Your task to perform on an android device: show emergency info Image 0: 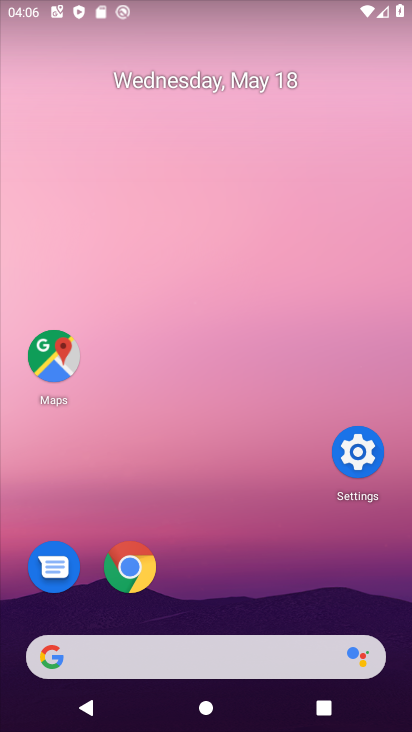
Step 0: drag from (236, 495) to (255, 105)
Your task to perform on an android device: show emergency info Image 1: 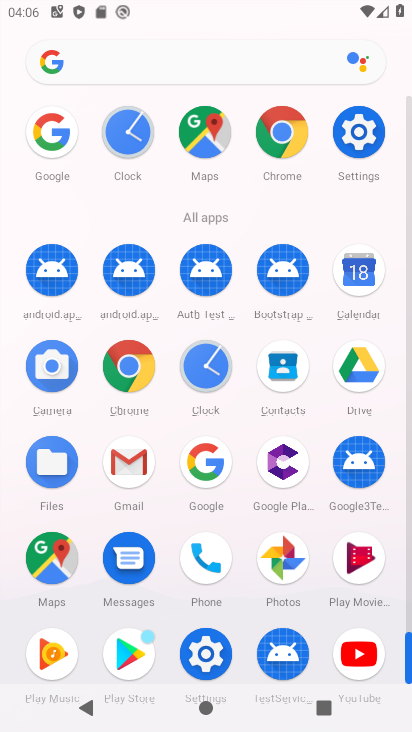
Step 1: click (212, 662)
Your task to perform on an android device: show emergency info Image 2: 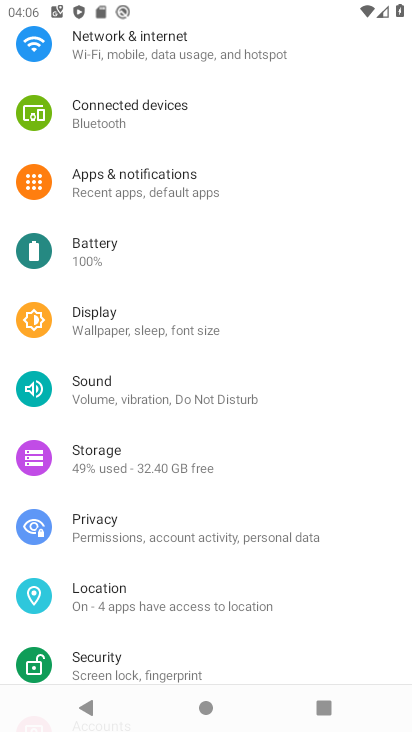
Step 2: drag from (163, 472) to (194, 124)
Your task to perform on an android device: show emergency info Image 3: 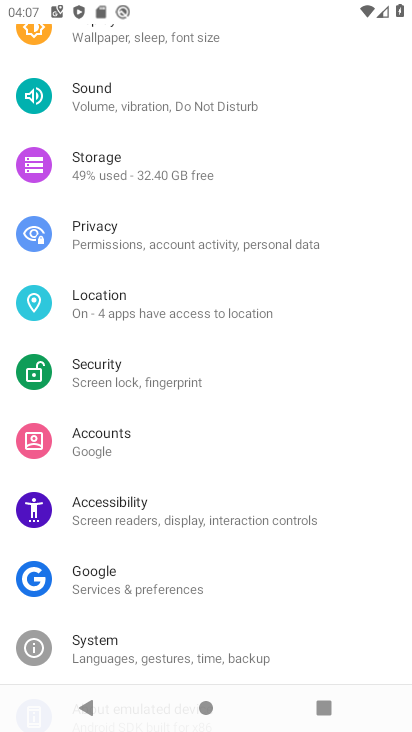
Step 3: click (91, 645)
Your task to perform on an android device: show emergency info Image 4: 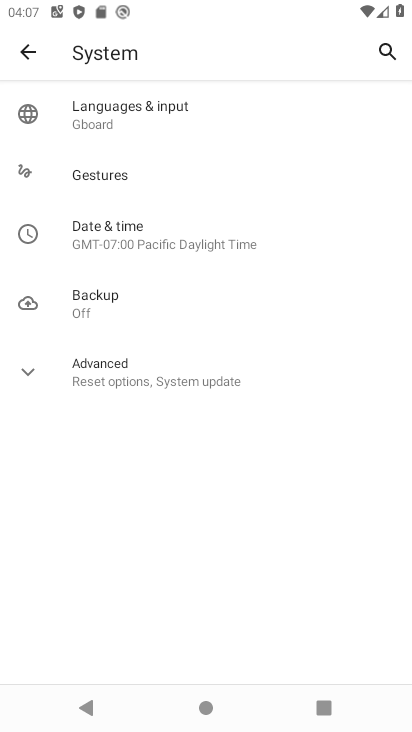
Step 4: click (20, 46)
Your task to perform on an android device: show emergency info Image 5: 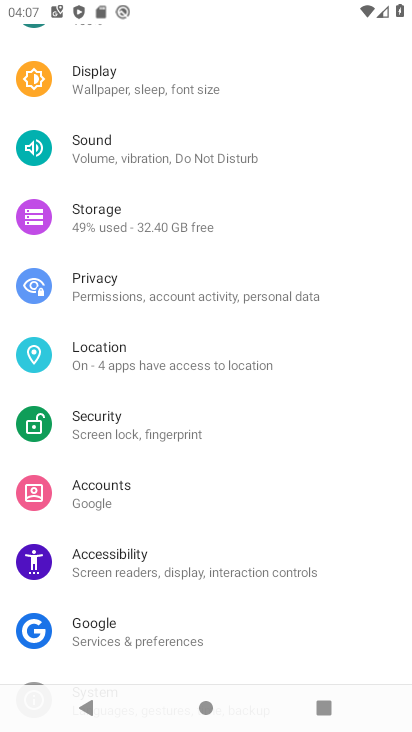
Step 5: drag from (294, 608) to (356, 177)
Your task to perform on an android device: show emergency info Image 6: 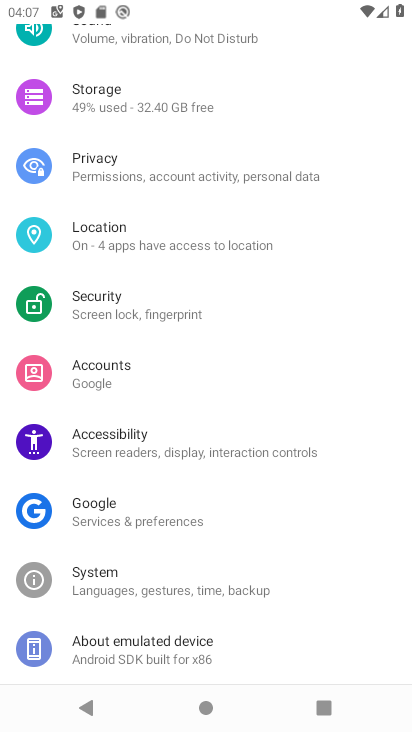
Step 6: click (122, 651)
Your task to perform on an android device: show emergency info Image 7: 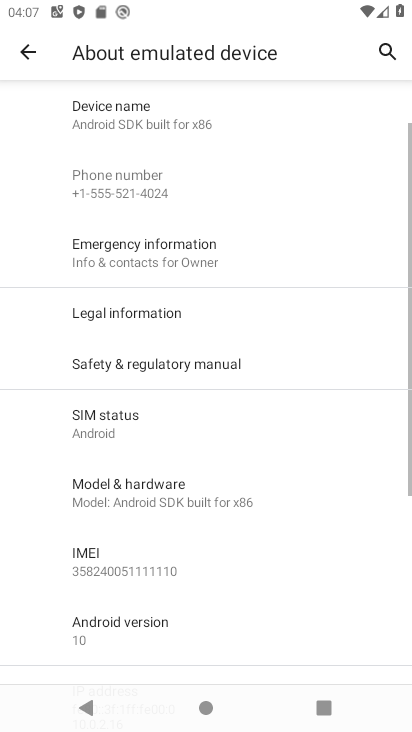
Step 7: click (143, 256)
Your task to perform on an android device: show emergency info Image 8: 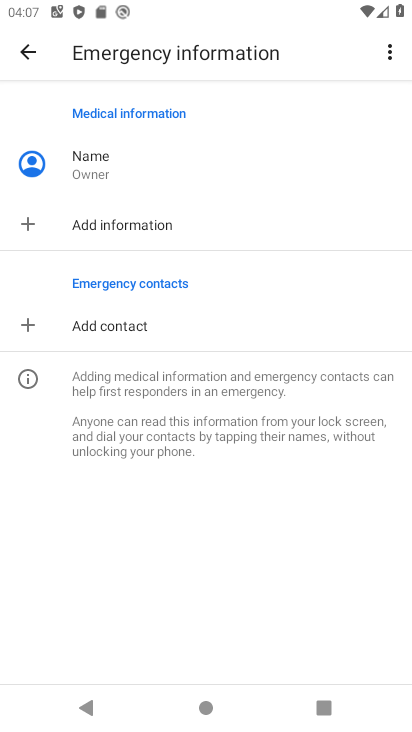
Step 8: task complete